Your task to perform on an android device: Open the stopwatch Image 0: 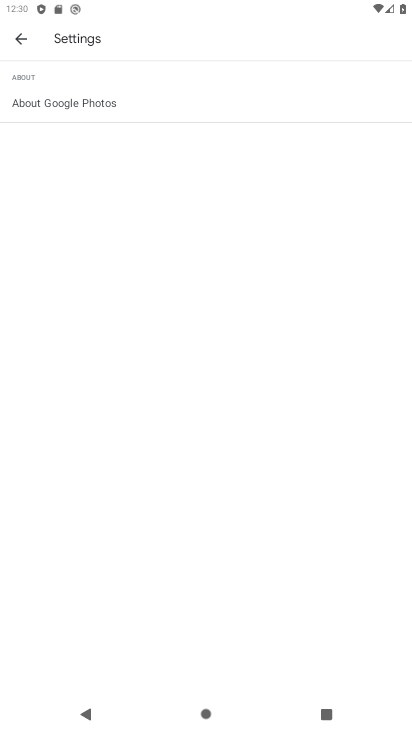
Step 0: press home button
Your task to perform on an android device: Open the stopwatch Image 1: 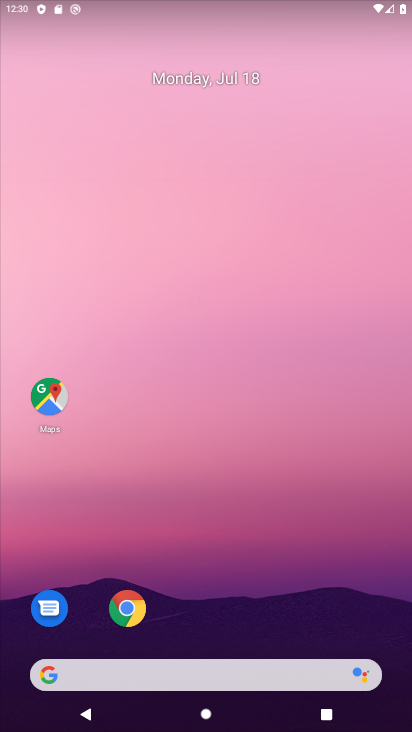
Step 1: drag from (313, 636) to (227, 154)
Your task to perform on an android device: Open the stopwatch Image 2: 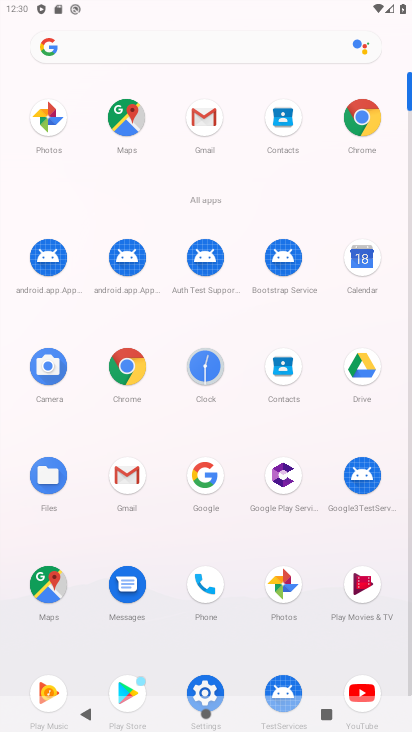
Step 2: click (212, 354)
Your task to perform on an android device: Open the stopwatch Image 3: 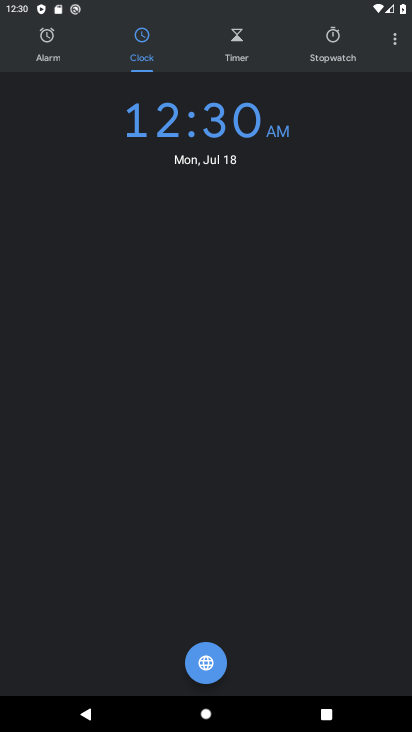
Step 3: click (332, 47)
Your task to perform on an android device: Open the stopwatch Image 4: 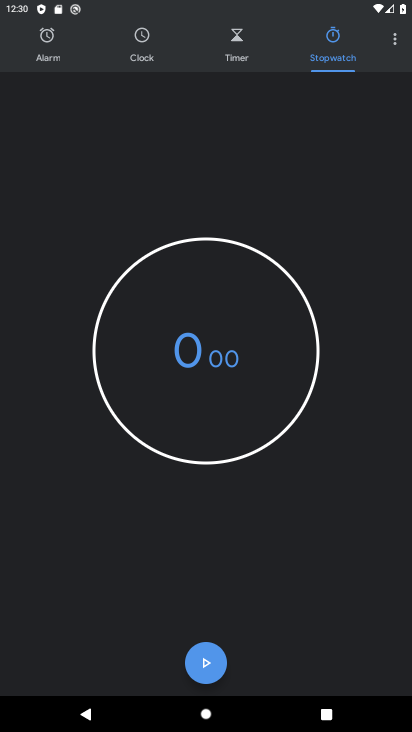
Step 4: task complete